Your task to perform on an android device: Show me the alarms in the clock app Image 0: 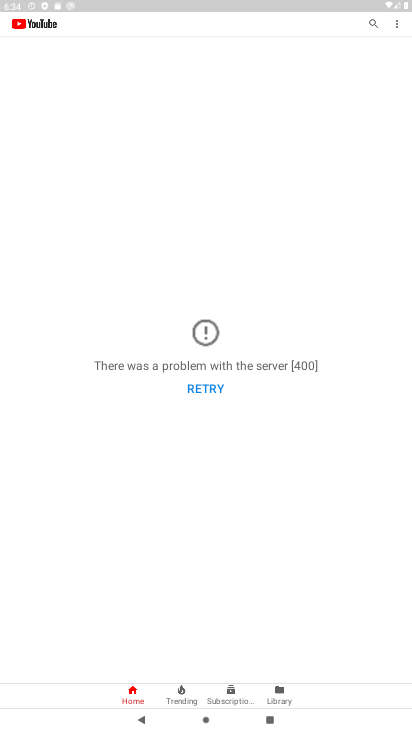
Step 0: press home button
Your task to perform on an android device: Show me the alarms in the clock app Image 1: 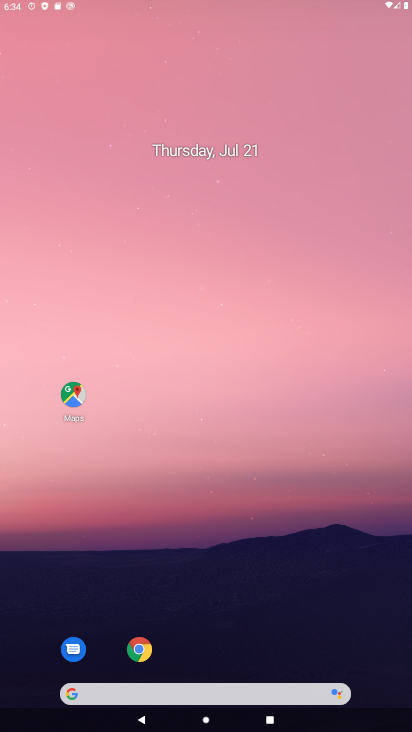
Step 1: drag from (361, 679) to (188, 79)
Your task to perform on an android device: Show me the alarms in the clock app Image 2: 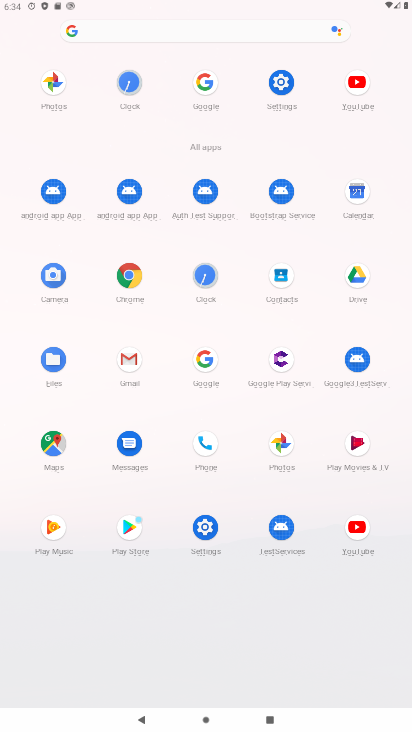
Step 2: click (126, 91)
Your task to perform on an android device: Show me the alarms in the clock app Image 3: 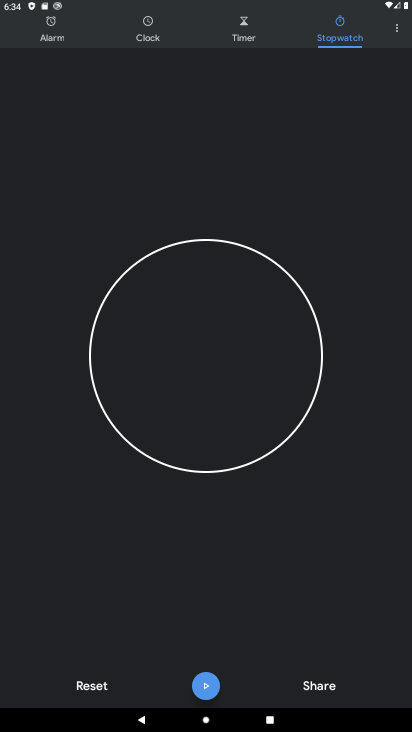
Step 3: click (54, 34)
Your task to perform on an android device: Show me the alarms in the clock app Image 4: 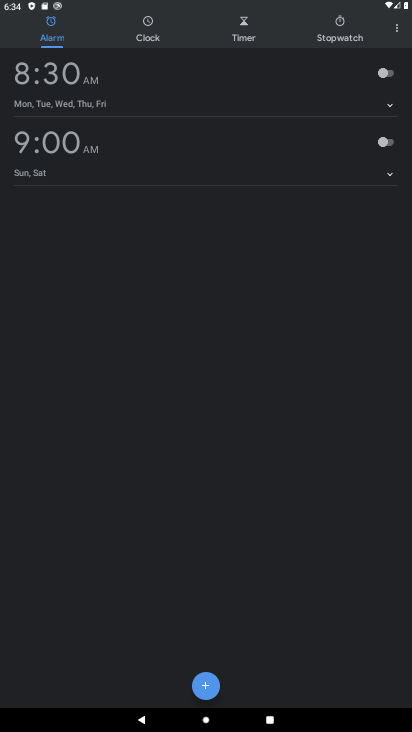
Step 4: task complete